Your task to perform on an android device: Find coffee shops on Maps Image 0: 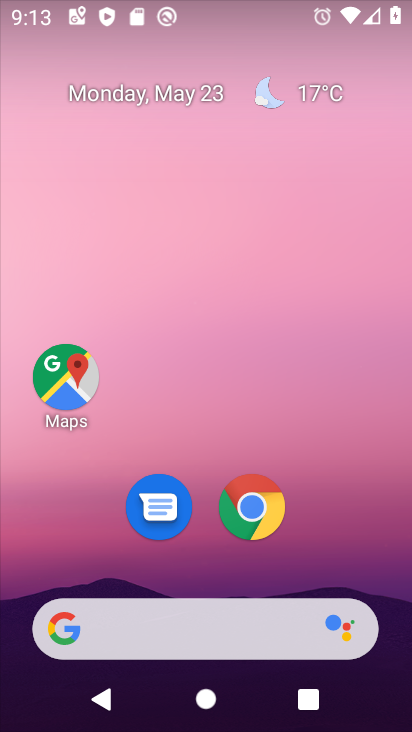
Step 0: click (66, 382)
Your task to perform on an android device: Find coffee shops on Maps Image 1: 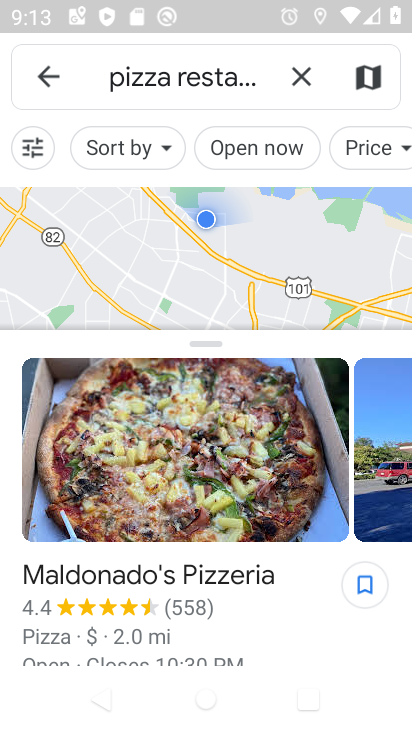
Step 1: click (301, 86)
Your task to perform on an android device: Find coffee shops on Maps Image 2: 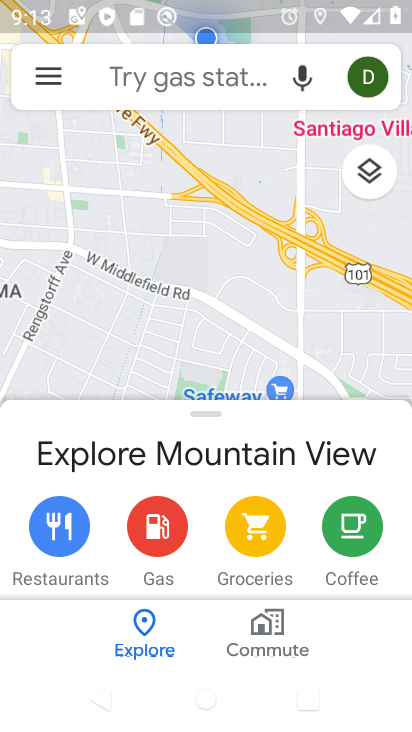
Step 2: click (119, 82)
Your task to perform on an android device: Find coffee shops on Maps Image 3: 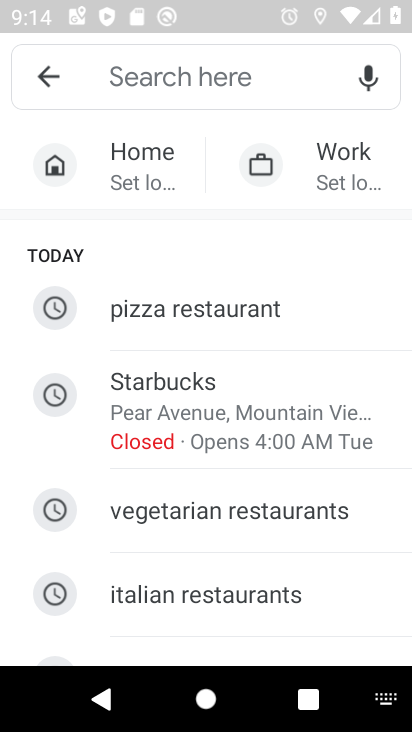
Step 3: type "coffee shops"
Your task to perform on an android device: Find coffee shops on Maps Image 4: 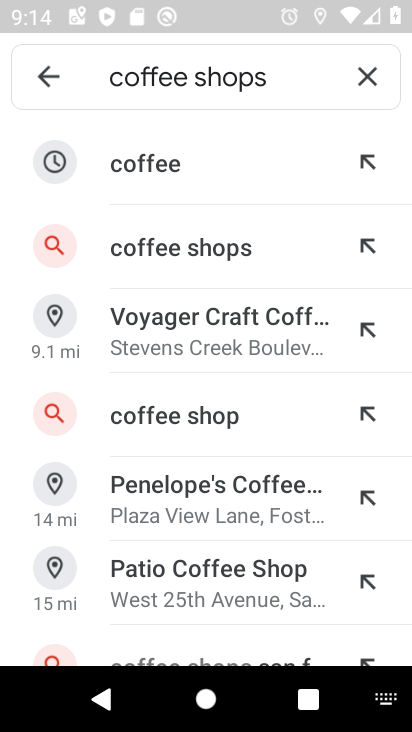
Step 4: click (181, 250)
Your task to perform on an android device: Find coffee shops on Maps Image 5: 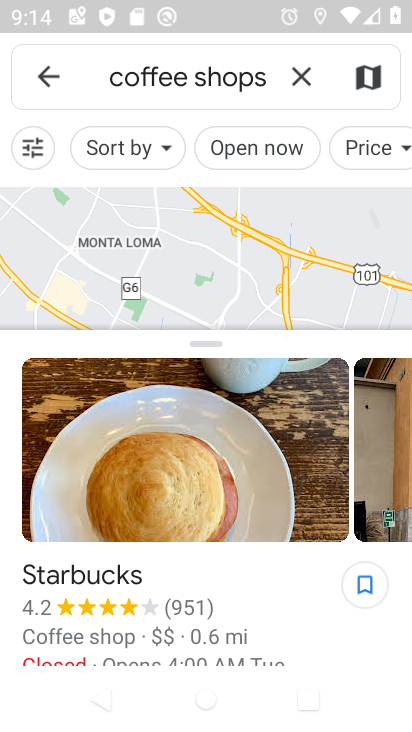
Step 5: task complete